Your task to perform on an android device: Open Yahoo.com Image 0: 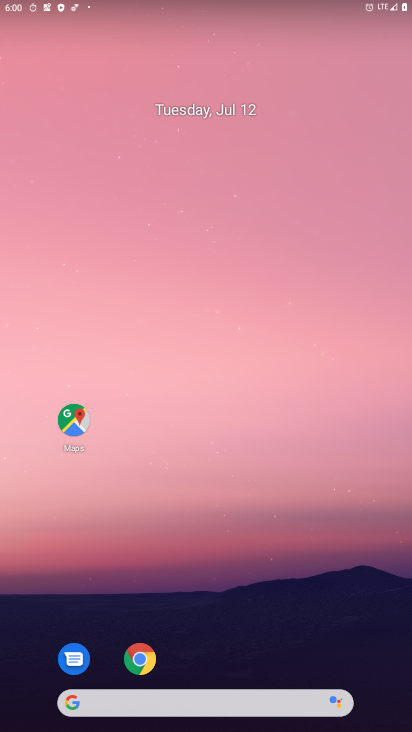
Step 0: click (128, 659)
Your task to perform on an android device: Open Yahoo.com Image 1: 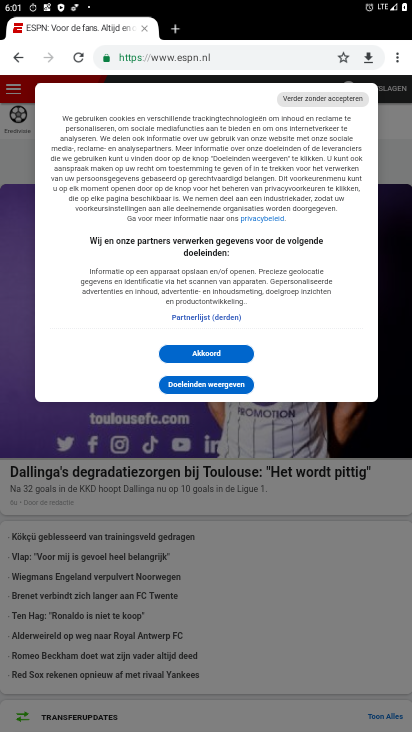
Step 1: click (185, 62)
Your task to perform on an android device: Open Yahoo.com Image 2: 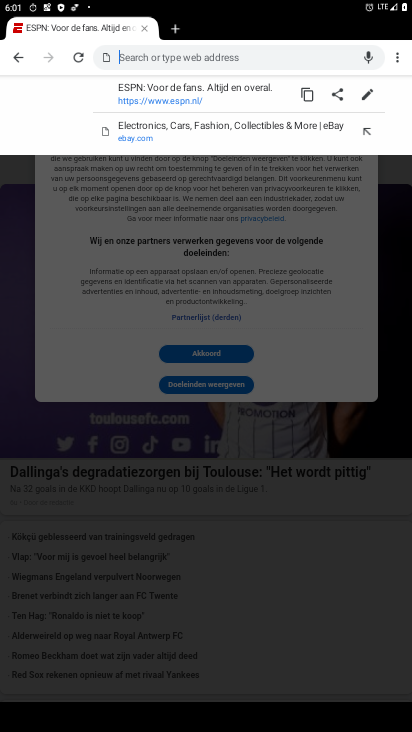
Step 2: type "www.yahoo.com"
Your task to perform on an android device: Open Yahoo.com Image 3: 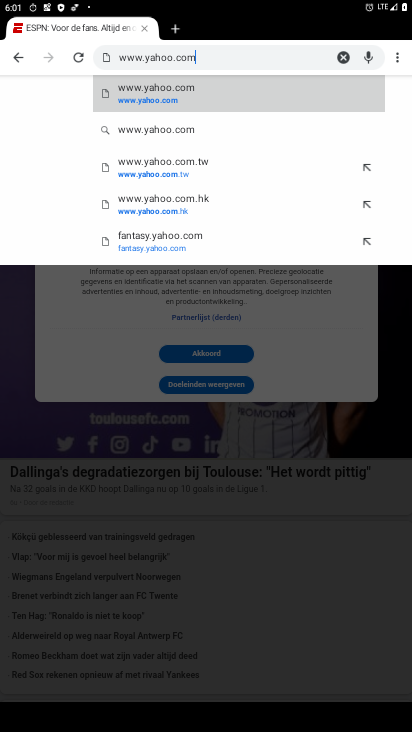
Step 3: click (164, 94)
Your task to perform on an android device: Open Yahoo.com Image 4: 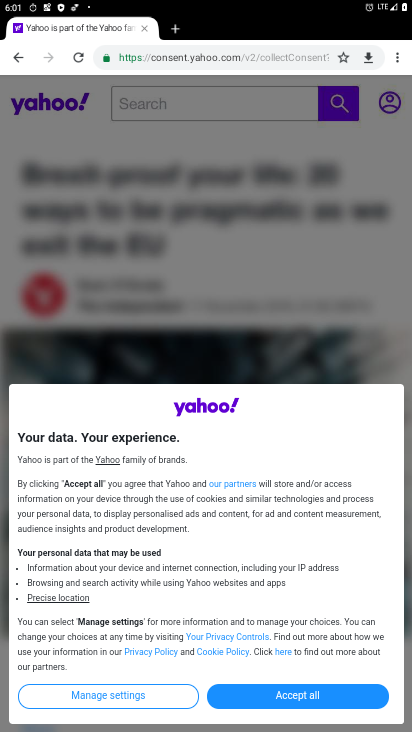
Step 4: task complete